Your task to perform on an android device: Search for custom wallets on Etsy. Image 0: 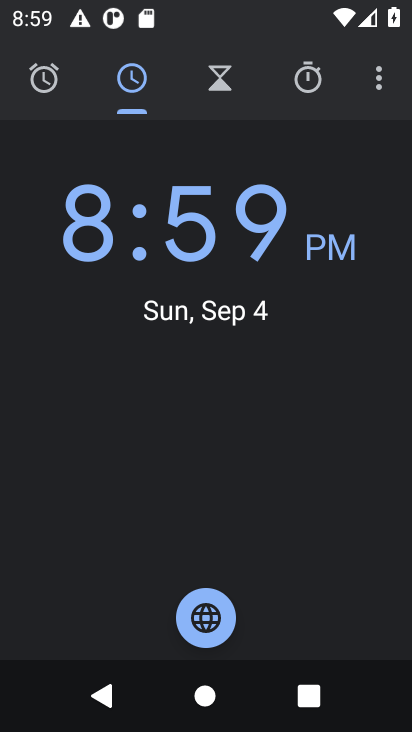
Step 0: task complete